Your task to perform on an android device: read, delete, or share a saved page in the chrome app Image 0: 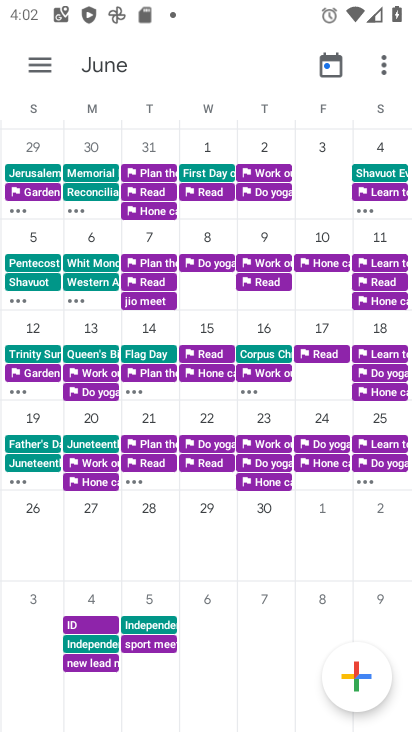
Step 0: press home button
Your task to perform on an android device: read, delete, or share a saved page in the chrome app Image 1: 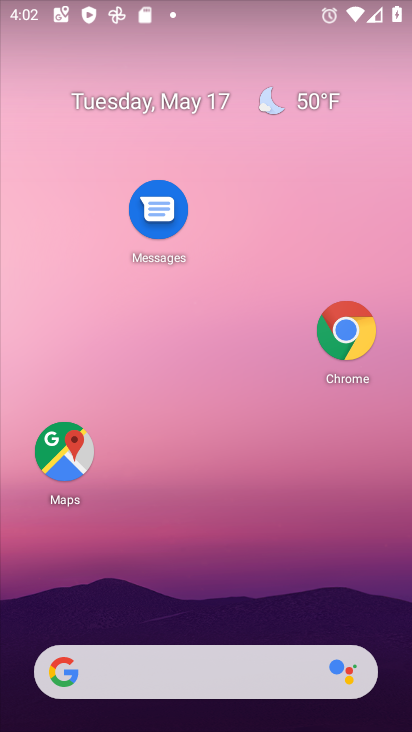
Step 1: click (354, 330)
Your task to perform on an android device: read, delete, or share a saved page in the chrome app Image 2: 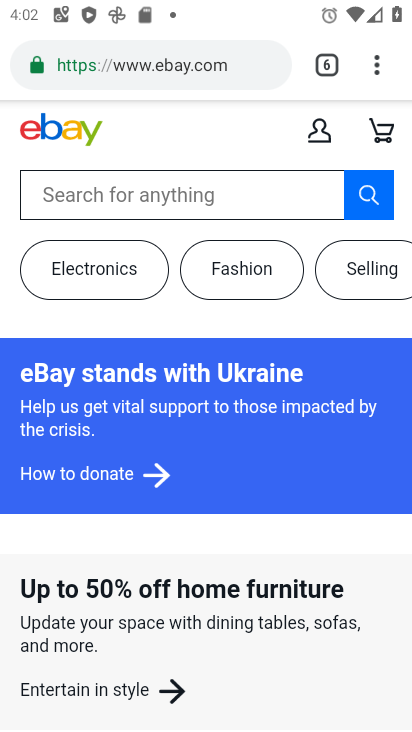
Step 2: click (377, 80)
Your task to perform on an android device: read, delete, or share a saved page in the chrome app Image 3: 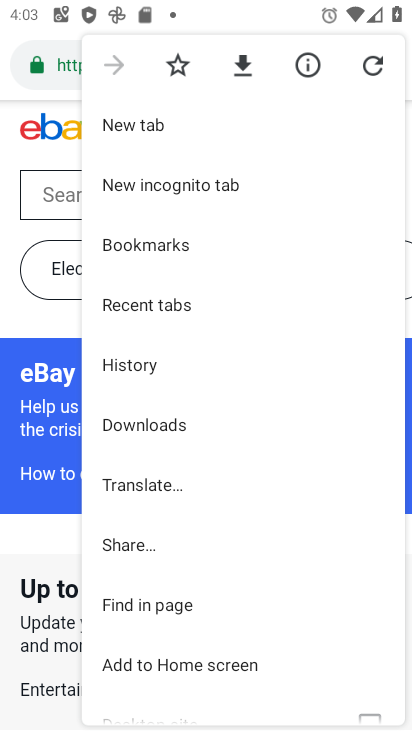
Step 3: drag from (162, 562) to (238, 269)
Your task to perform on an android device: read, delete, or share a saved page in the chrome app Image 4: 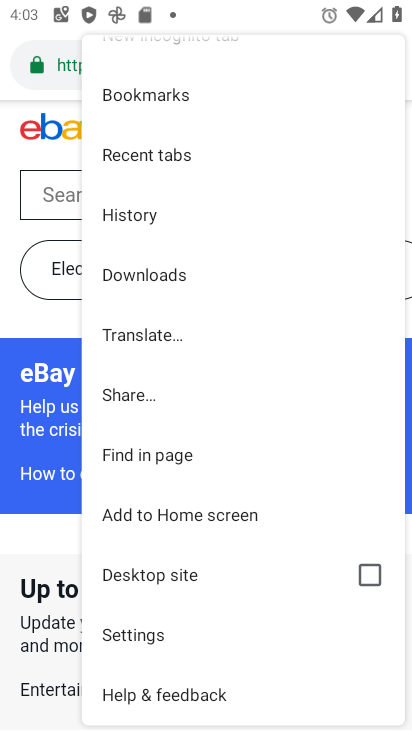
Step 4: click (204, 617)
Your task to perform on an android device: read, delete, or share a saved page in the chrome app Image 5: 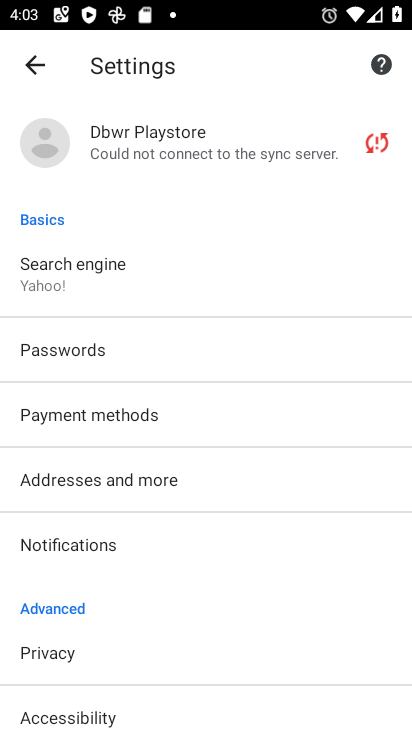
Step 5: click (34, 71)
Your task to perform on an android device: read, delete, or share a saved page in the chrome app Image 6: 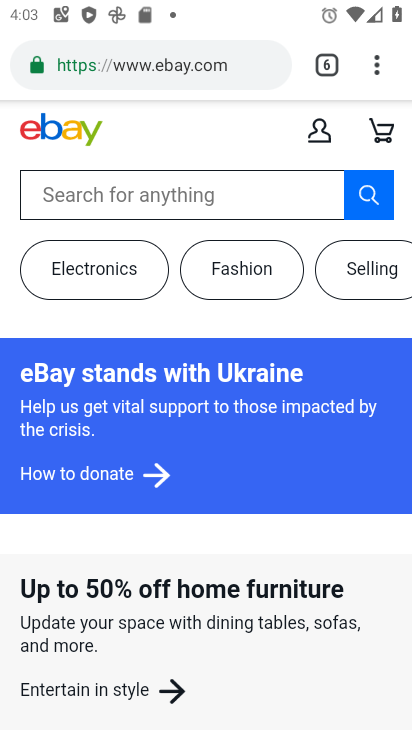
Step 6: click (391, 72)
Your task to perform on an android device: read, delete, or share a saved page in the chrome app Image 7: 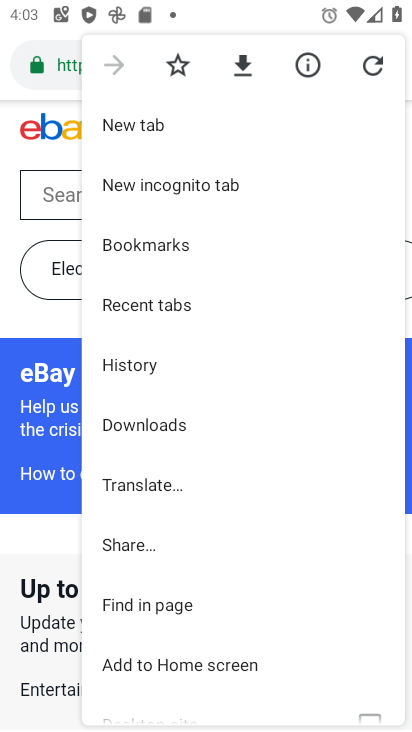
Step 7: drag from (214, 307) to (214, 258)
Your task to perform on an android device: read, delete, or share a saved page in the chrome app Image 8: 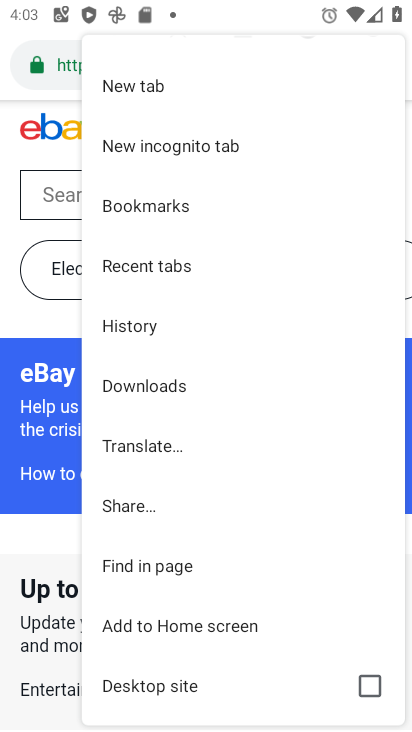
Step 8: click (181, 368)
Your task to perform on an android device: read, delete, or share a saved page in the chrome app Image 9: 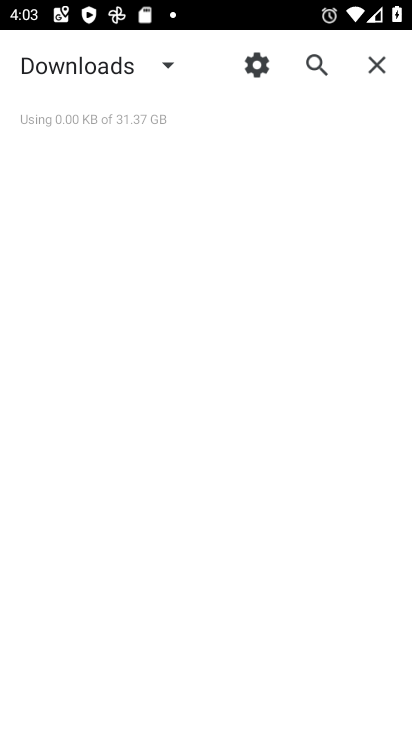
Step 9: task complete